Your task to perform on an android device: turn off notifications settings in the gmail app Image 0: 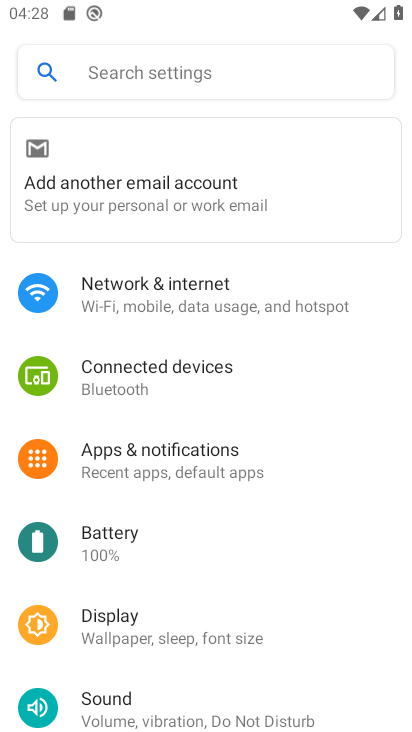
Step 0: press home button
Your task to perform on an android device: turn off notifications settings in the gmail app Image 1: 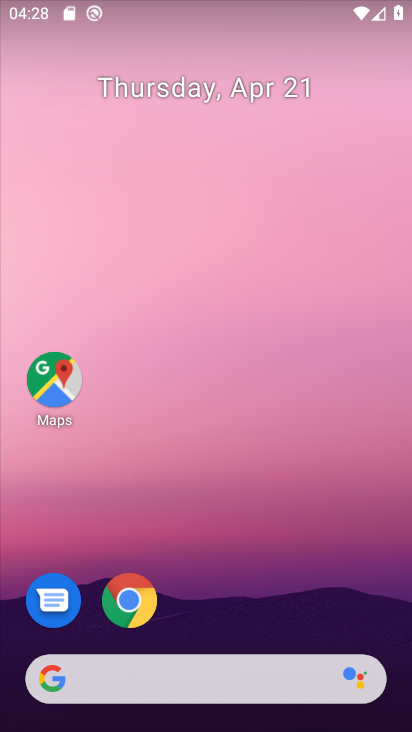
Step 1: drag from (332, 544) to (290, 35)
Your task to perform on an android device: turn off notifications settings in the gmail app Image 2: 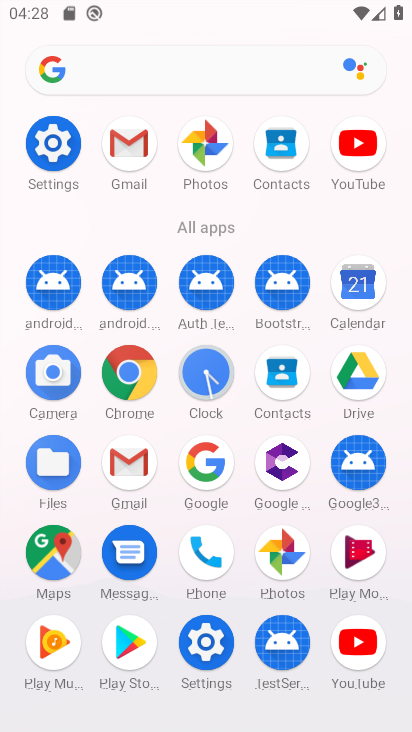
Step 2: click (117, 147)
Your task to perform on an android device: turn off notifications settings in the gmail app Image 3: 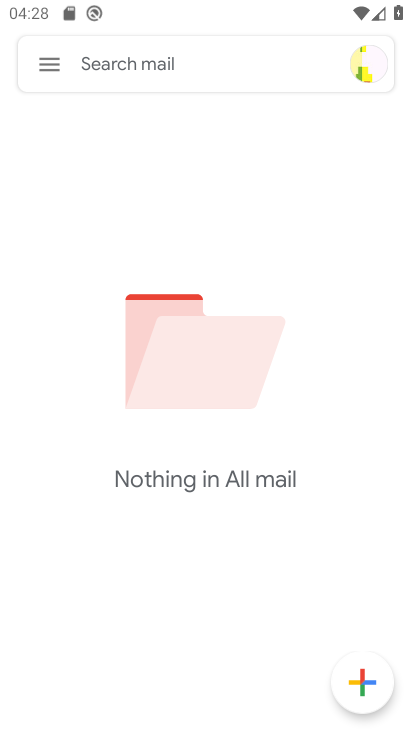
Step 3: click (47, 59)
Your task to perform on an android device: turn off notifications settings in the gmail app Image 4: 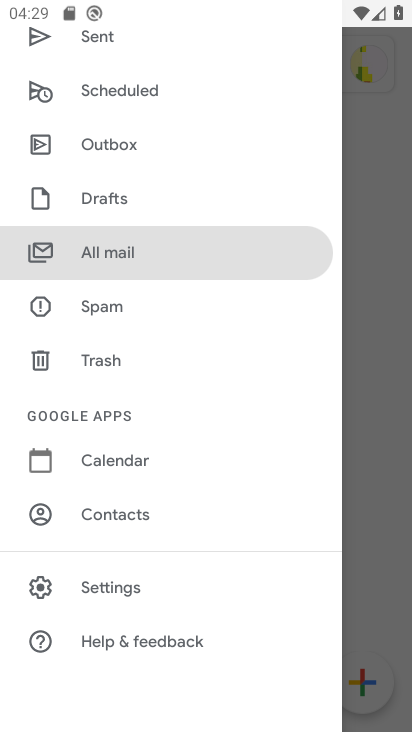
Step 4: click (136, 601)
Your task to perform on an android device: turn off notifications settings in the gmail app Image 5: 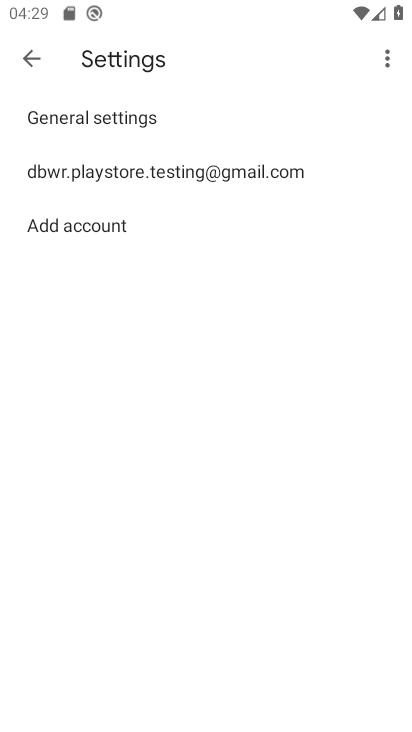
Step 5: click (69, 128)
Your task to perform on an android device: turn off notifications settings in the gmail app Image 6: 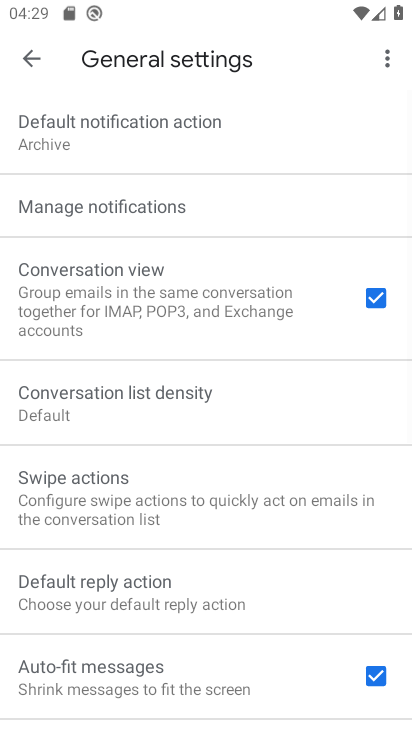
Step 6: click (95, 219)
Your task to perform on an android device: turn off notifications settings in the gmail app Image 7: 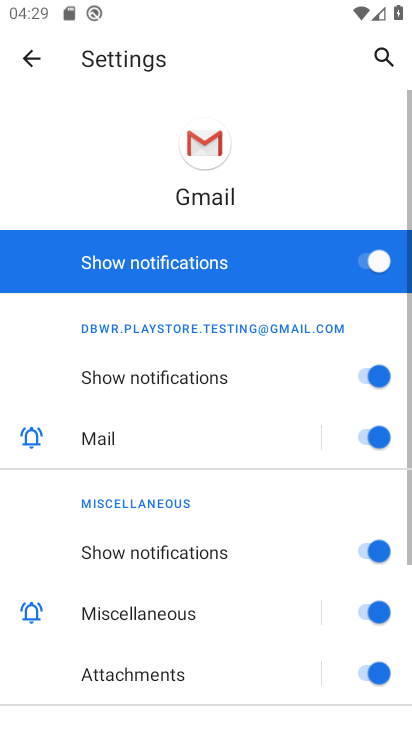
Step 7: click (386, 255)
Your task to perform on an android device: turn off notifications settings in the gmail app Image 8: 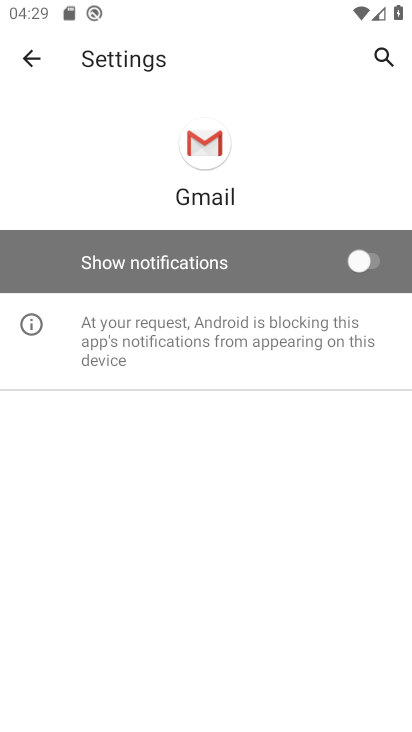
Step 8: task complete